Your task to perform on an android device: Check the news Image 0: 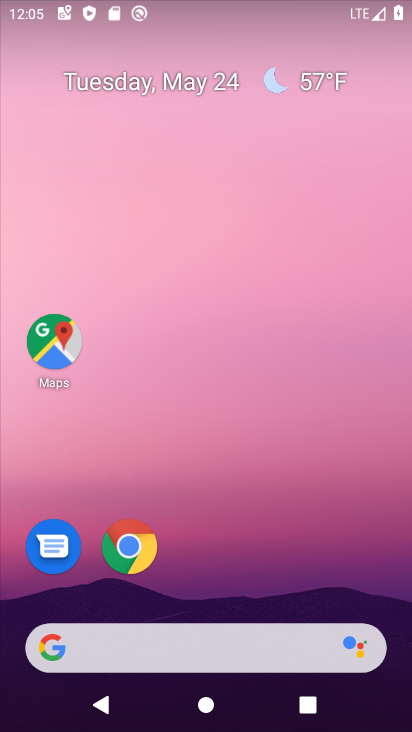
Step 0: click (204, 131)
Your task to perform on an android device: Check the news Image 1: 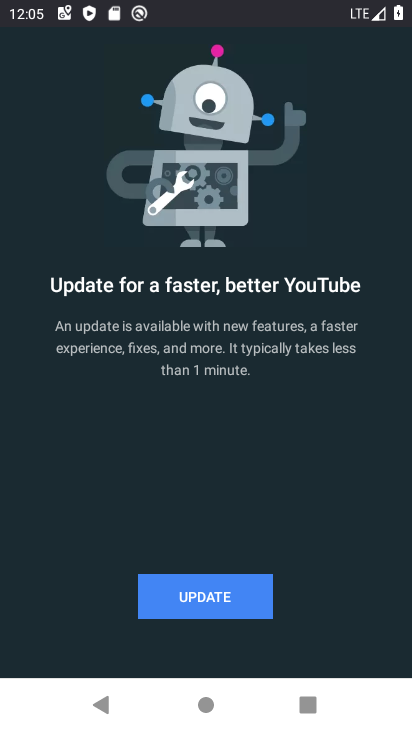
Step 1: press home button
Your task to perform on an android device: Check the news Image 2: 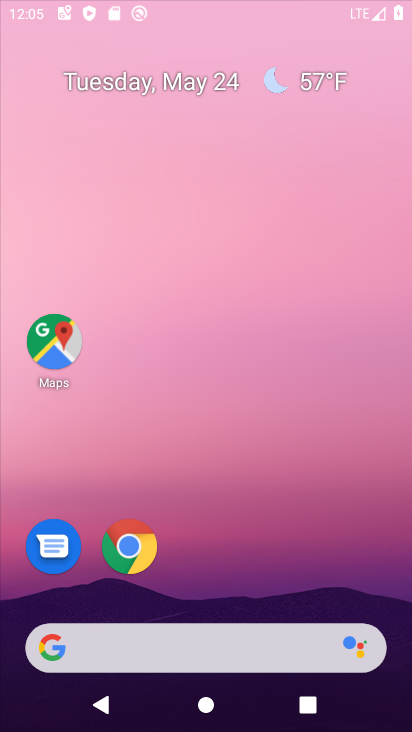
Step 2: drag from (289, 575) to (298, 151)
Your task to perform on an android device: Check the news Image 3: 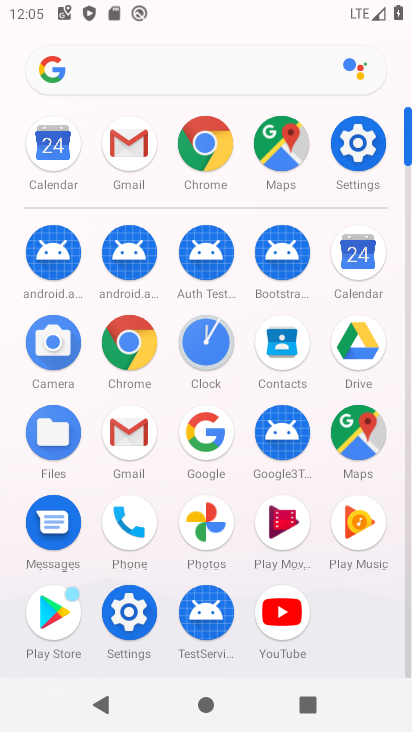
Step 3: click (217, 59)
Your task to perform on an android device: Check the news Image 4: 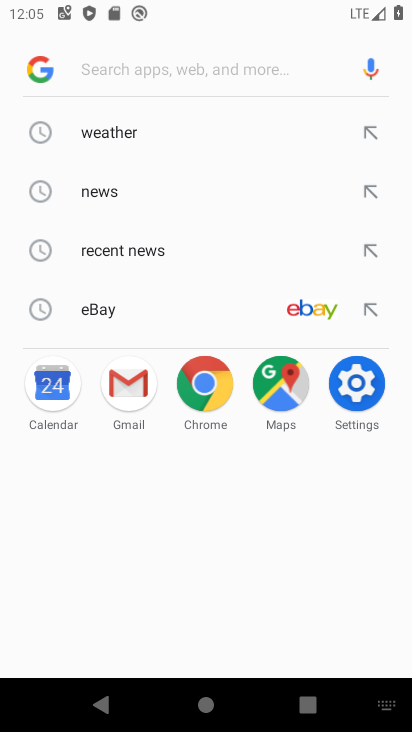
Step 4: click (118, 203)
Your task to perform on an android device: Check the news Image 5: 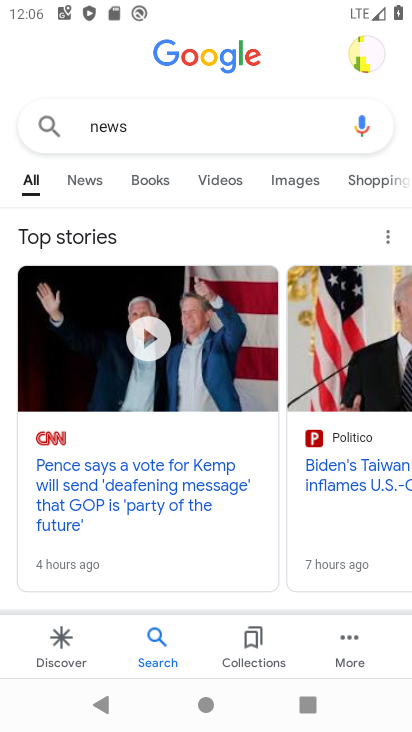
Step 5: task complete